Your task to perform on an android device: turn off javascript in the chrome app Image 0: 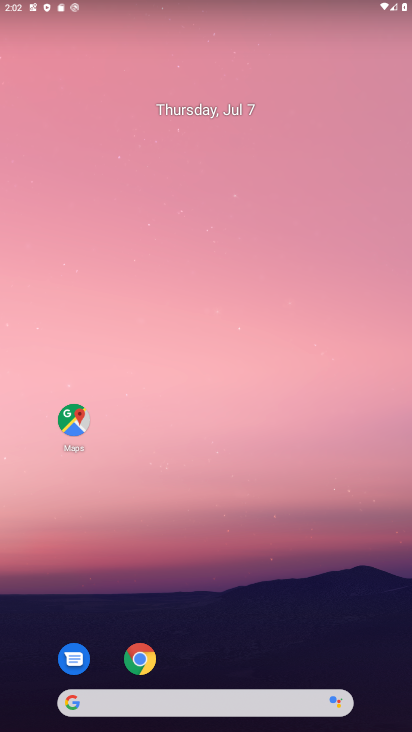
Step 0: click (138, 655)
Your task to perform on an android device: turn off javascript in the chrome app Image 1: 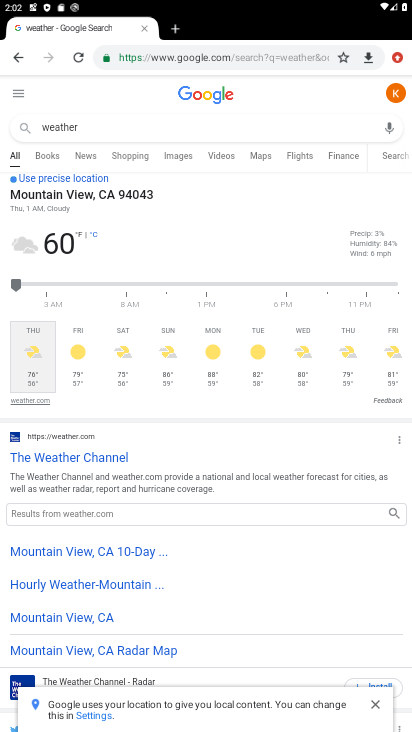
Step 1: click (394, 51)
Your task to perform on an android device: turn off javascript in the chrome app Image 2: 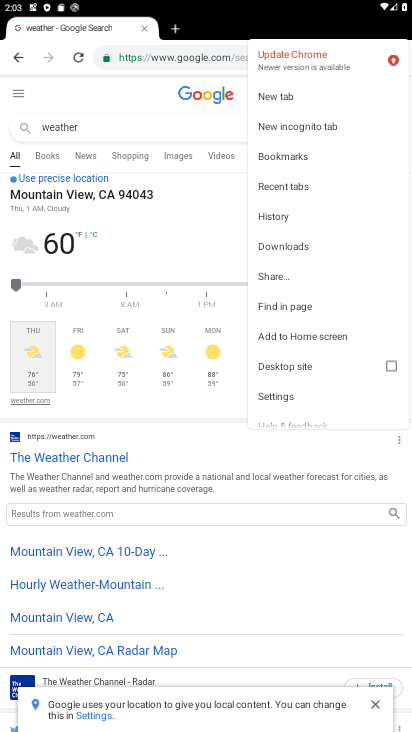
Step 2: click (304, 394)
Your task to perform on an android device: turn off javascript in the chrome app Image 3: 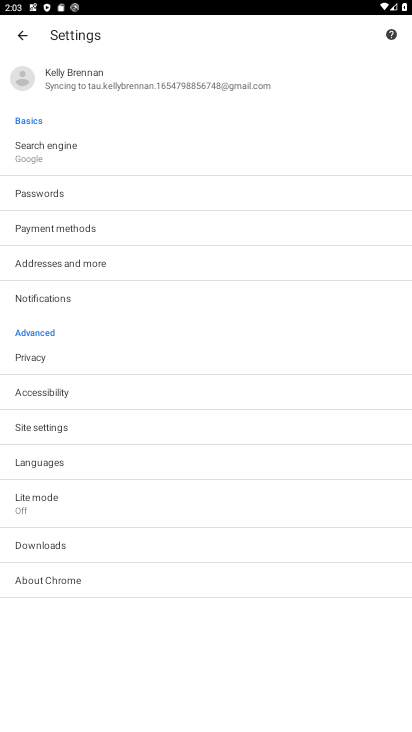
Step 3: click (103, 427)
Your task to perform on an android device: turn off javascript in the chrome app Image 4: 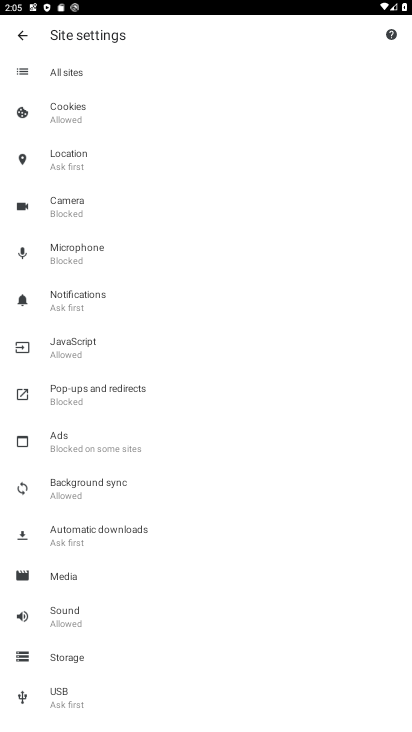
Step 4: click (146, 344)
Your task to perform on an android device: turn off javascript in the chrome app Image 5: 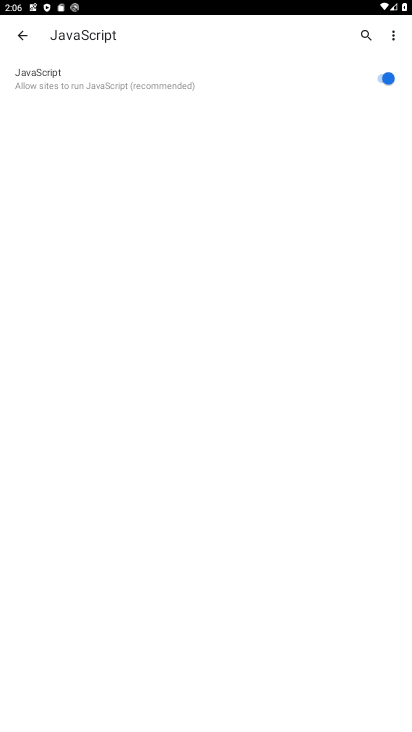
Step 5: click (375, 75)
Your task to perform on an android device: turn off javascript in the chrome app Image 6: 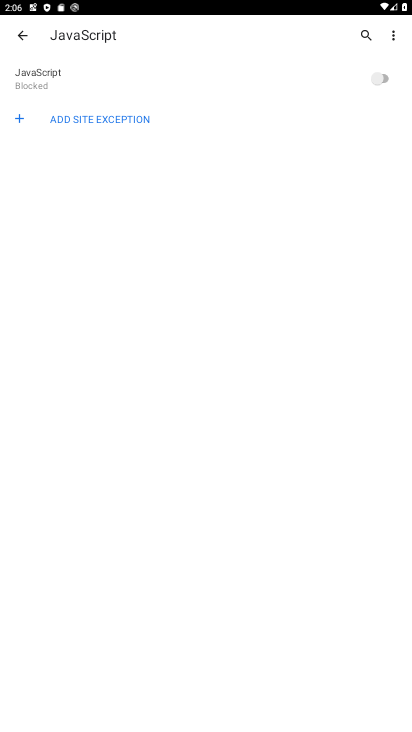
Step 6: task complete